Your task to perform on an android device: Open the calendar app, open the side menu, and click the "Day" option Image 0: 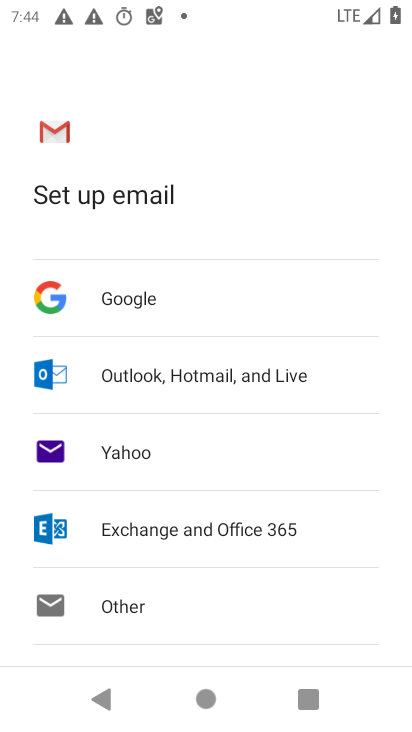
Step 0: press home button
Your task to perform on an android device: Open the calendar app, open the side menu, and click the "Day" option Image 1: 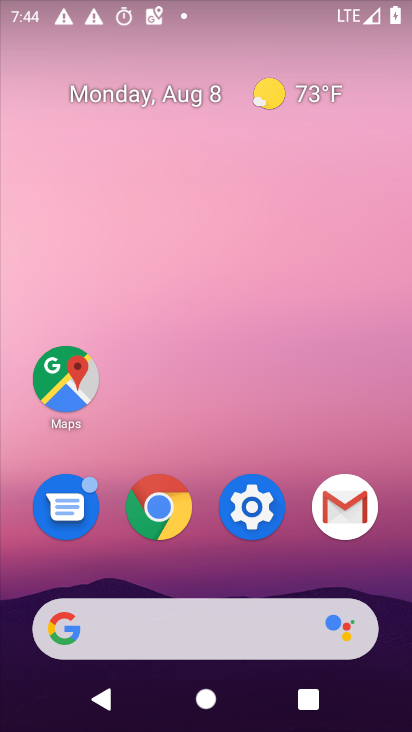
Step 1: drag from (261, 640) to (203, 173)
Your task to perform on an android device: Open the calendar app, open the side menu, and click the "Day" option Image 2: 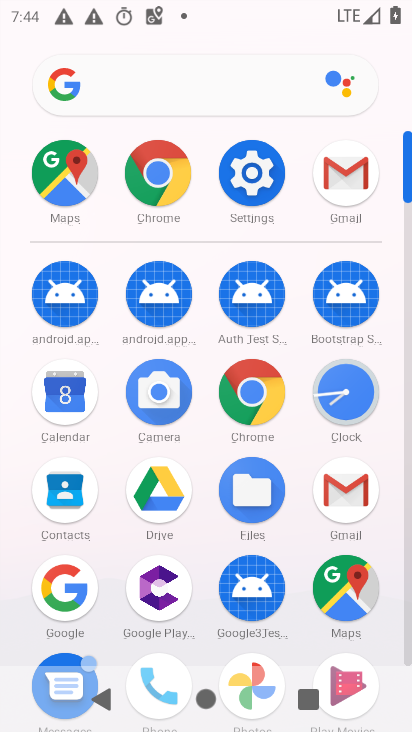
Step 2: click (67, 393)
Your task to perform on an android device: Open the calendar app, open the side menu, and click the "Day" option Image 3: 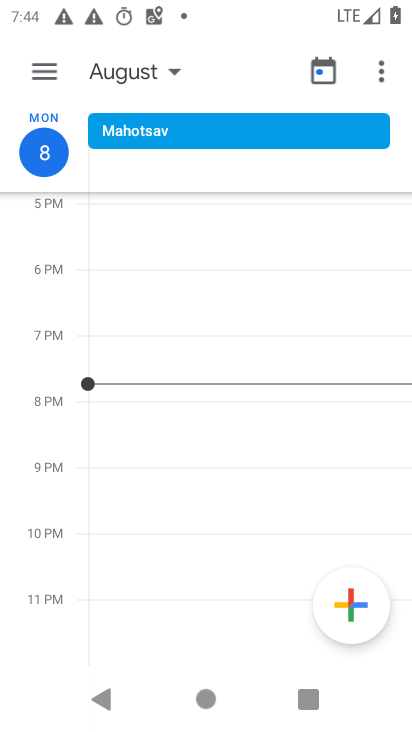
Step 3: click (41, 71)
Your task to perform on an android device: Open the calendar app, open the side menu, and click the "Day" option Image 4: 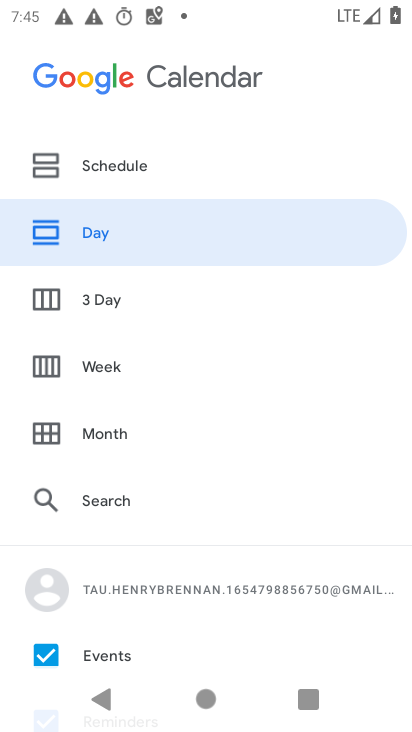
Step 4: click (138, 240)
Your task to perform on an android device: Open the calendar app, open the side menu, and click the "Day" option Image 5: 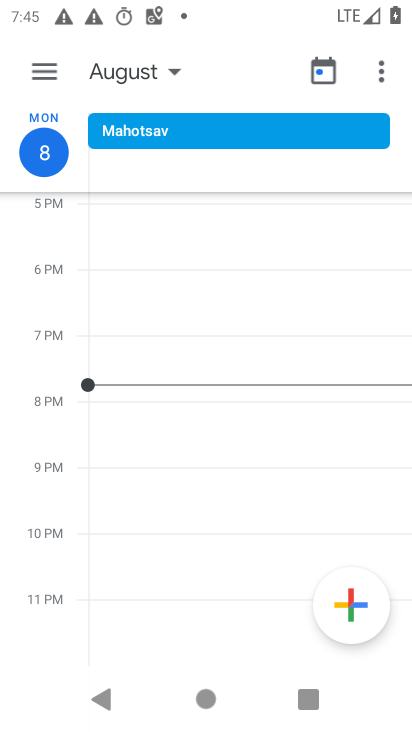
Step 5: task complete